Your task to perform on an android device: turn on location history Image 0: 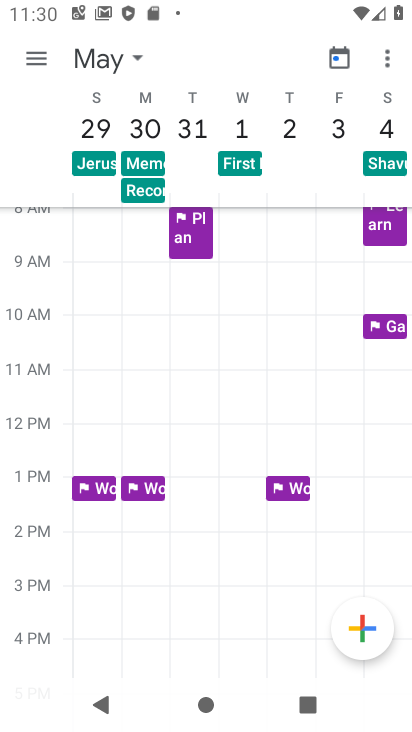
Step 0: press home button
Your task to perform on an android device: turn on location history Image 1: 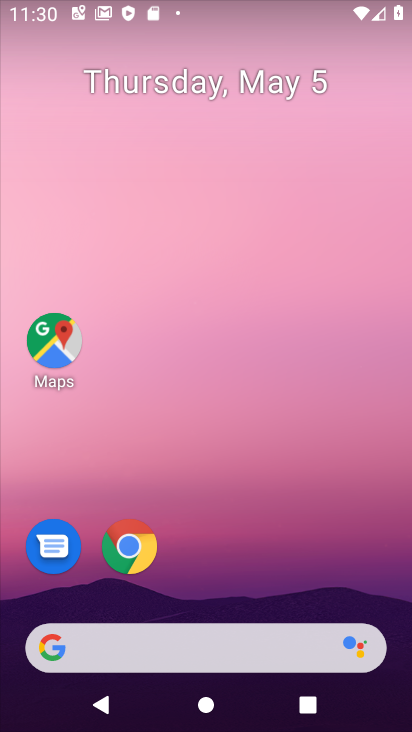
Step 1: drag from (297, 308) to (297, 107)
Your task to perform on an android device: turn on location history Image 2: 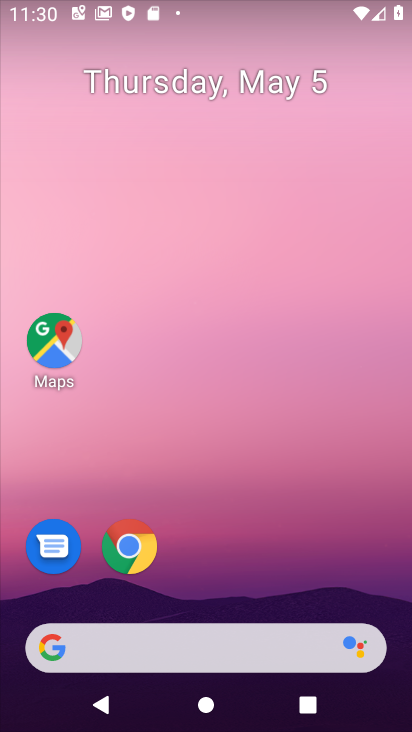
Step 2: drag from (289, 532) to (272, 7)
Your task to perform on an android device: turn on location history Image 3: 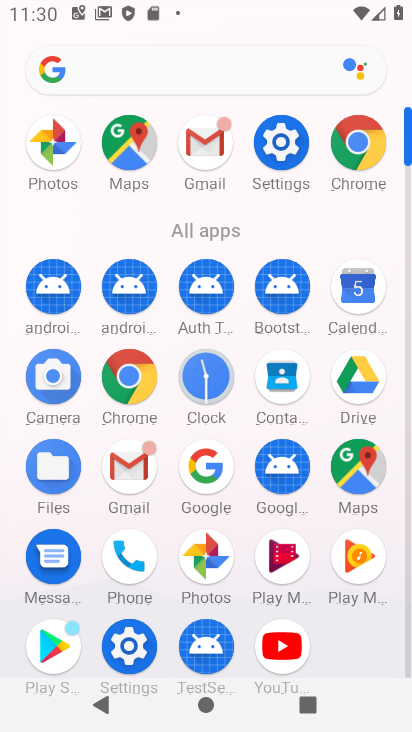
Step 3: click (284, 159)
Your task to perform on an android device: turn on location history Image 4: 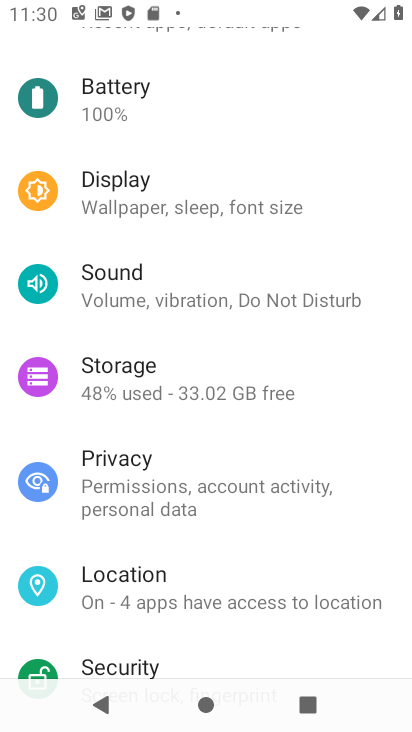
Step 4: click (262, 605)
Your task to perform on an android device: turn on location history Image 5: 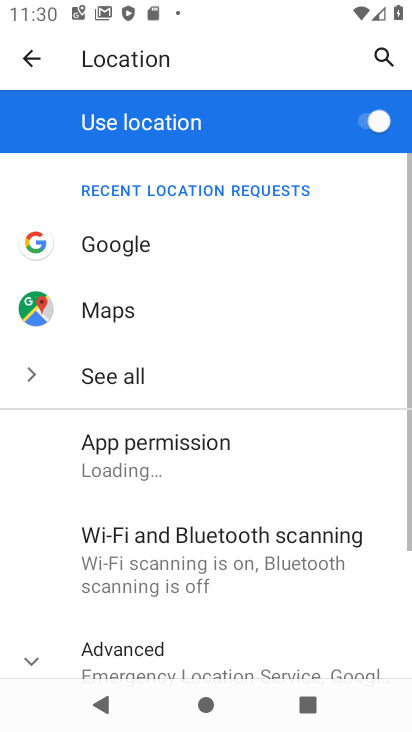
Step 5: drag from (270, 567) to (270, 231)
Your task to perform on an android device: turn on location history Image 6: 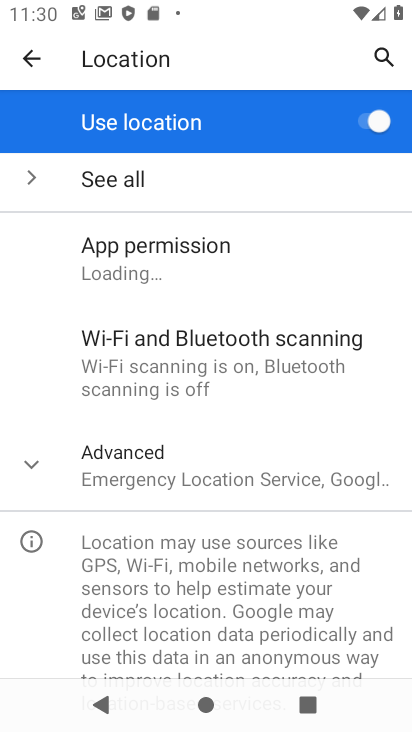
Step 6: click (238, 486)
Your task to perform on an android device: turn on location history Image 7: 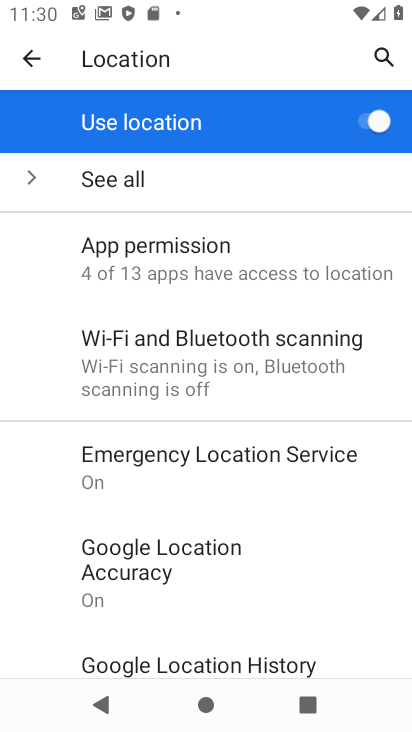
Step 7: click (269, 658)
Your task to perform on an android device: turn on location history Image 8: 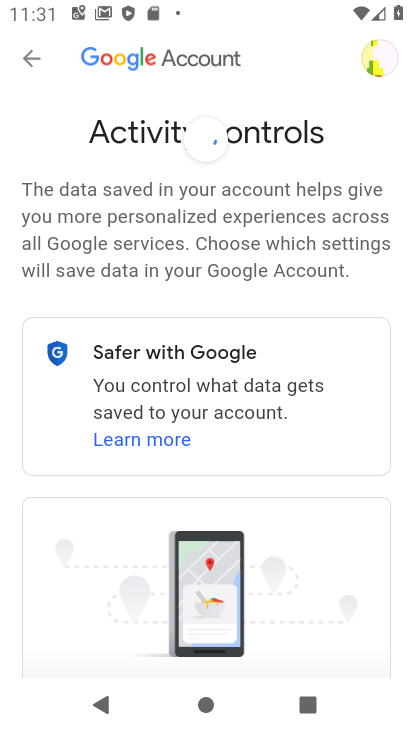
Step 8: task complete